Your task to perform on an android device: Open Android settings Image 0: 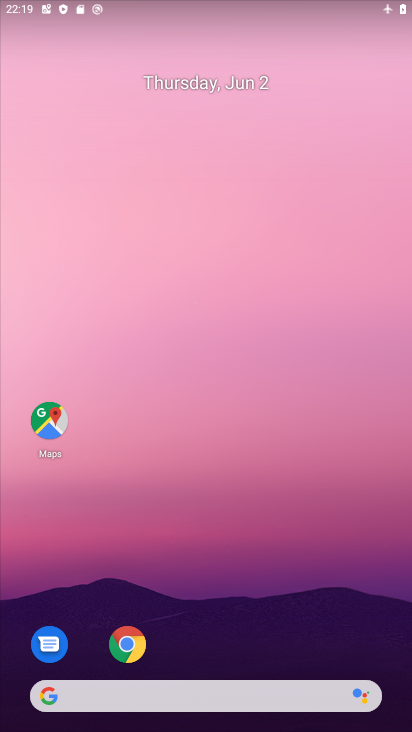
Step 0: drag from (204, 650) to (181, 184)
Your task to perform on an android device: Open Android settings Image 1: 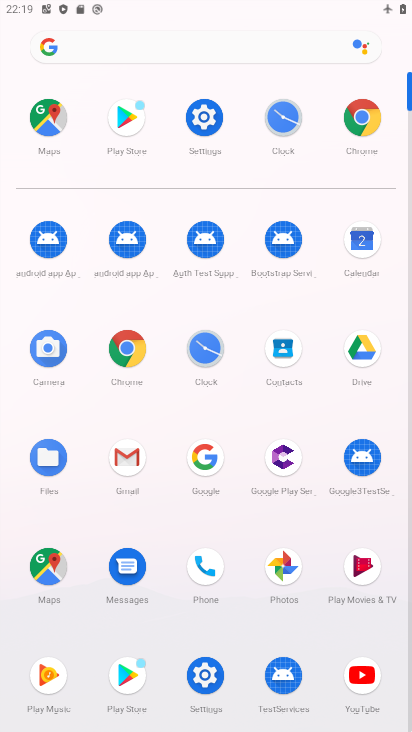
Step 1: click (200, 135)
Your task to perform on an android device: Open Android settings Image 2: 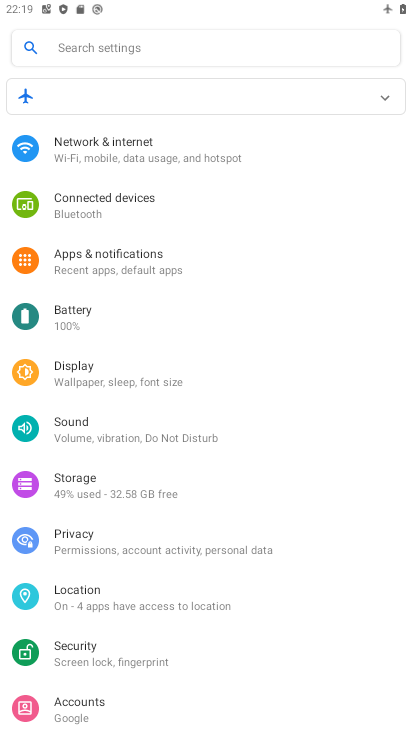
Step 2: drag from (125, 641) to (147, 221)
Your task to perform on an android device: Open Android settings Image 3: 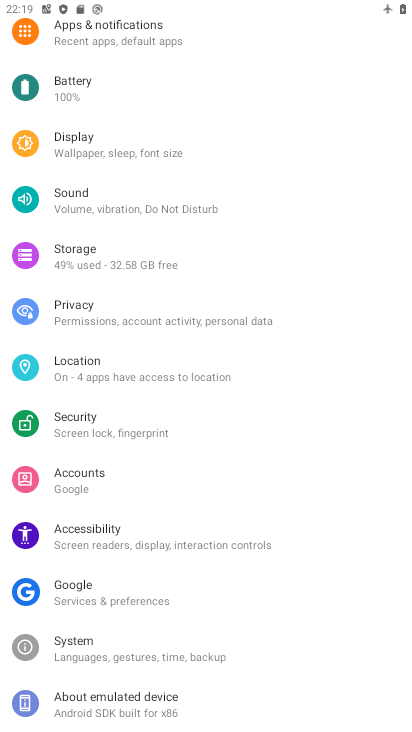
Step 3: click (87, 720)
Your task to perform on an android device: Open Android settings Image 4: 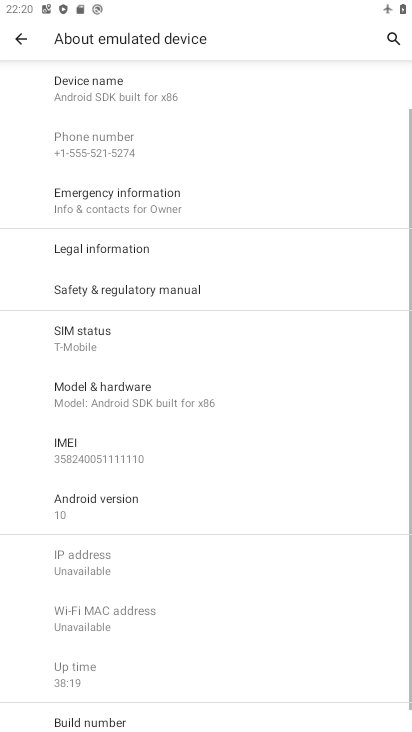
Step 4: click (99, 514)
Your task to perform on an android device: Open Android settings Image 5: 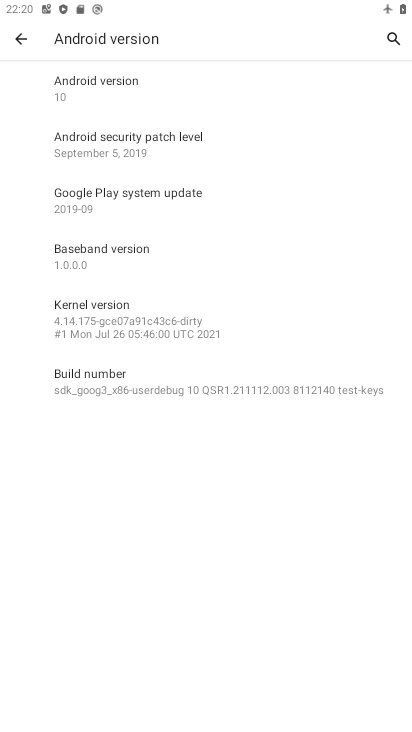
Step 5: task complete